Your task to perform on an android device: allow cookies in the chrome app Image 0: 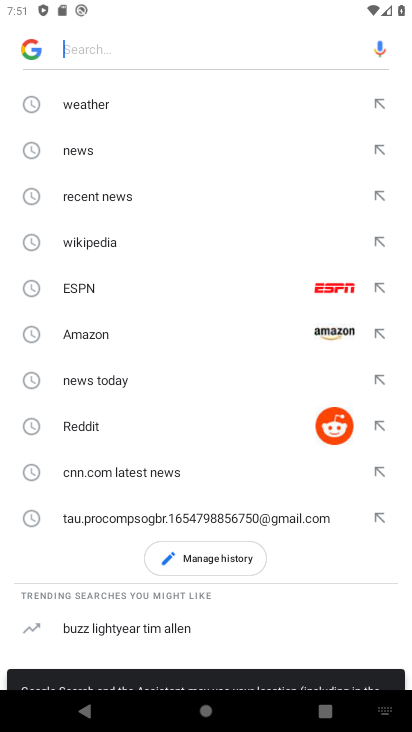
Step 0: press home button
Your task to perform on an android device: allow cookies in the chrome app Image 1: 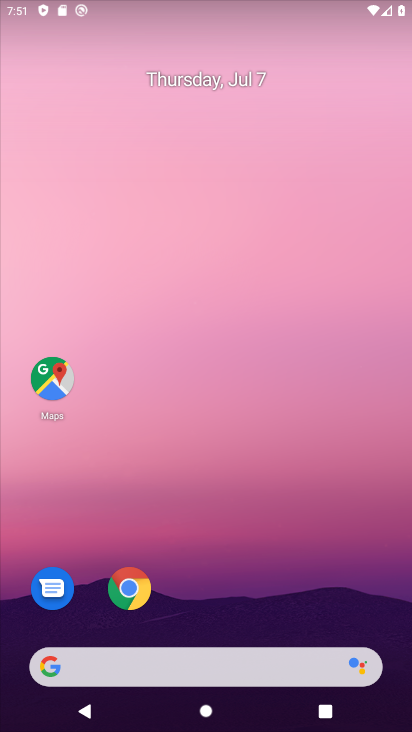
Step 1: drag from (239, 586) to (212, 78)
Your task to perform on an android device: allow cookies in the chrome app Image 2: 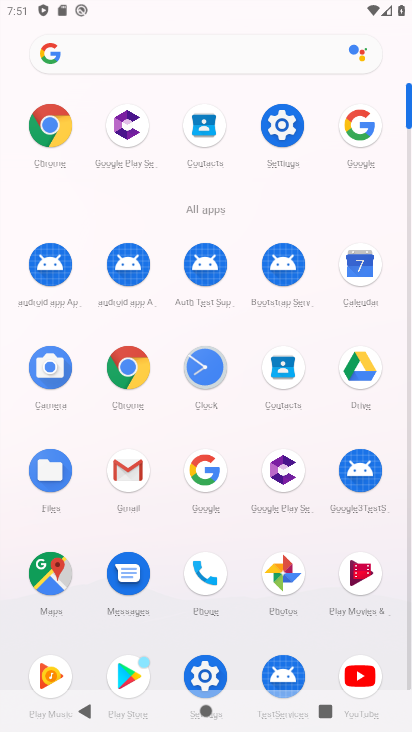
Step 2: click (56, 120)
Your task to perform on an android device: allow cookies in the chrome app Image 3: 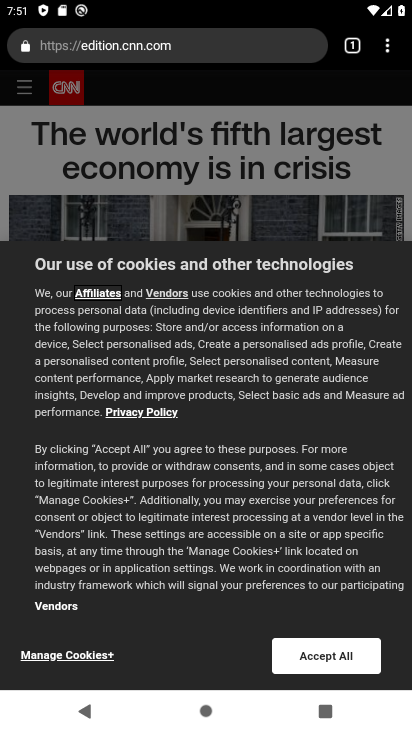
Step 3: click (388, 41)
Your task to perform on an android device: allow cookies in the chrome app Image 4: 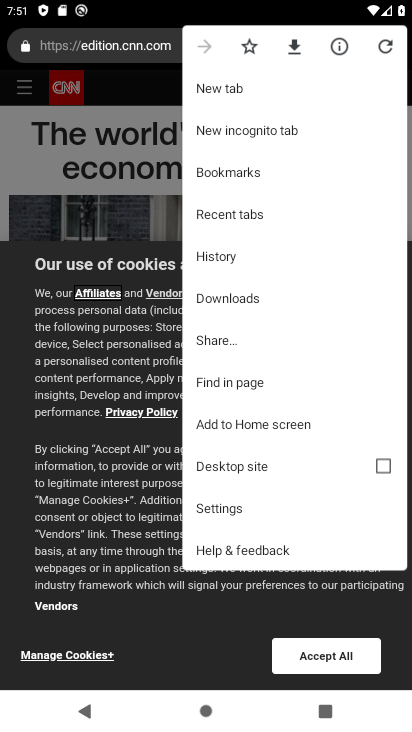
Step 4: click (250, 500)
Your task to perform on an android device: allow cookies in the chrome app Image 5: 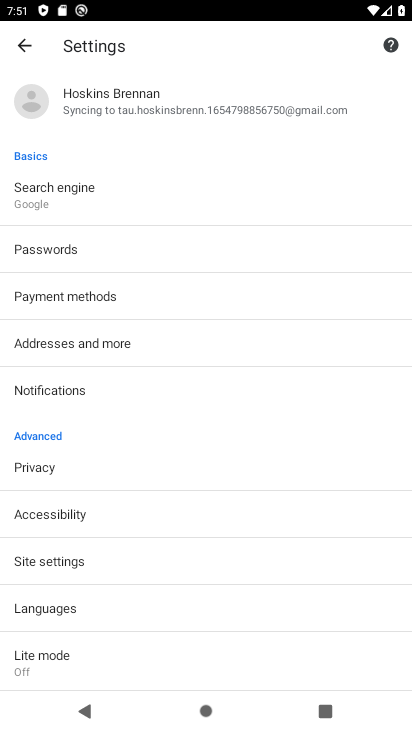
Step 5: click (88, 548)
Your task to perform on an android device: allow cookies in the chrome app Image 6: 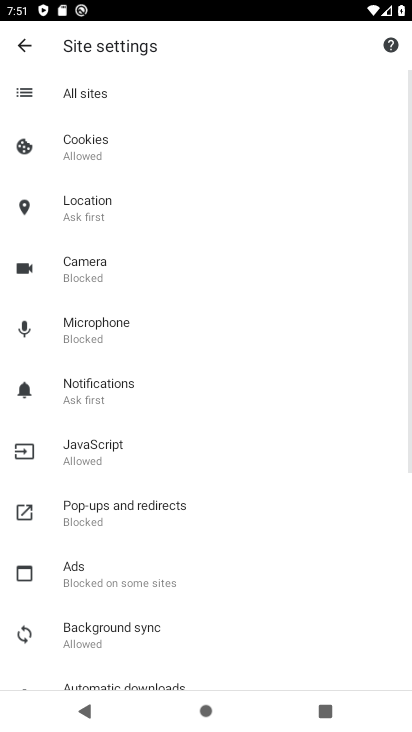
Step 6: click (116, 153)
Your task to perform on an android device: allow cookies in the chrome app Image 7: 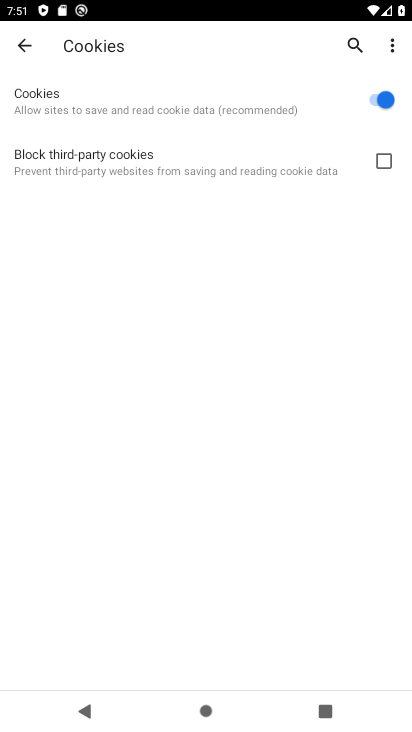
Step 7: task complete